Your task to perform on an android device: open app "Google Calendar" Image 0: 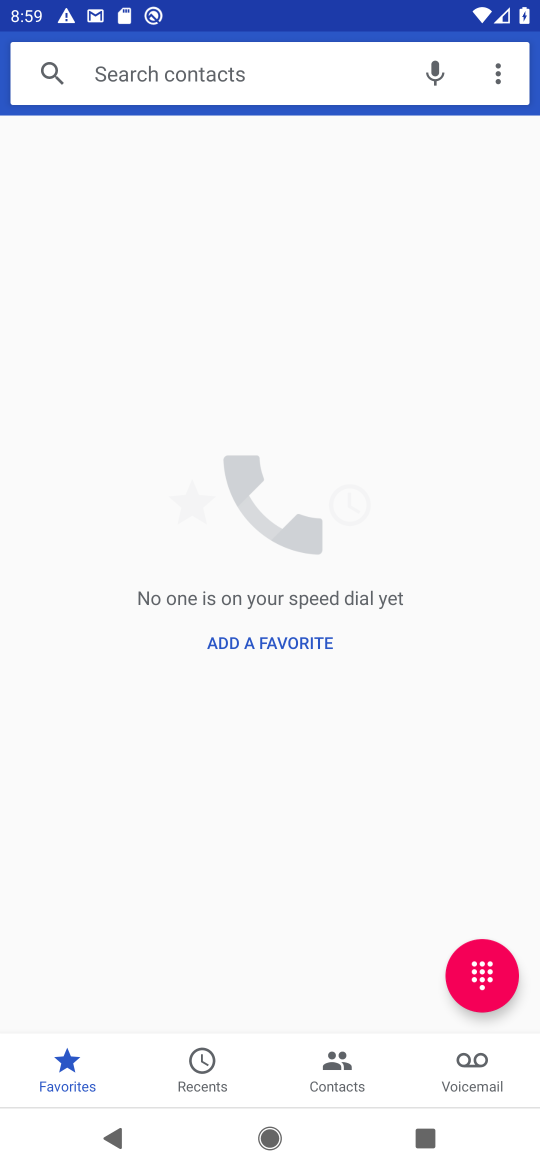
Step 0: press home button
Your task to perform on an android device: open app "Google Calendar" Image 1: 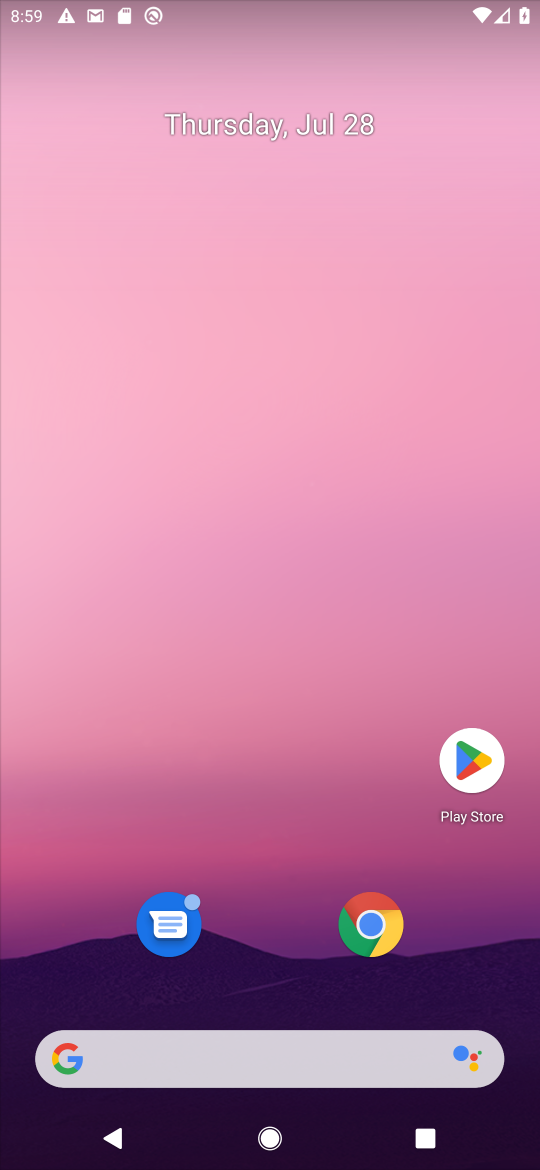
Step 1: drag from (266, 1055) to (405, 276)
Your task to perform on an android device: open app "Google Calendar" Image 2: 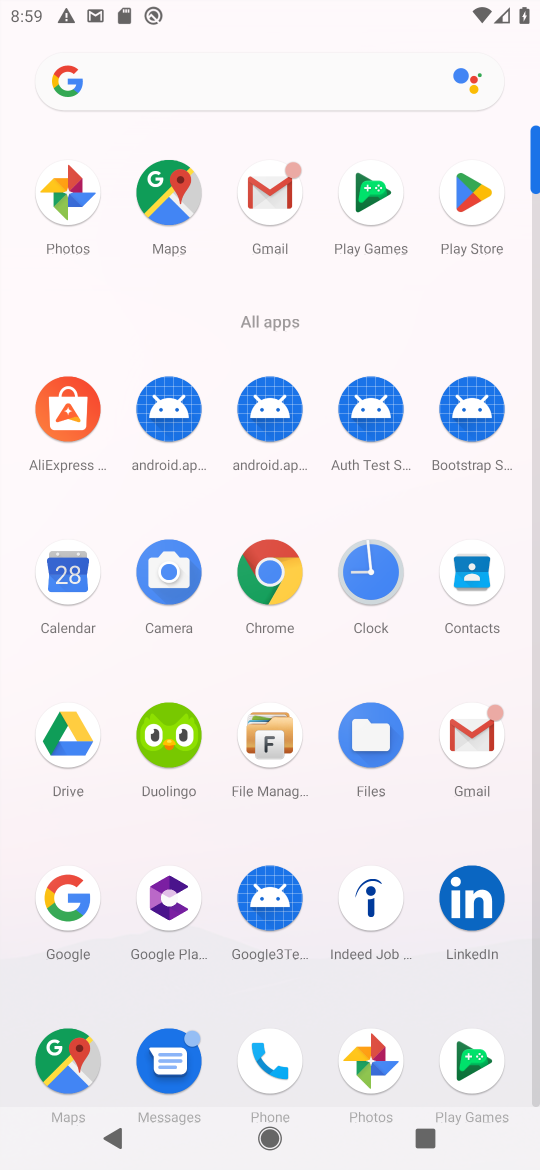
Step 2: click (73, 590)
Your task to perform on an android device: open app "Google Calendar" Image 3: 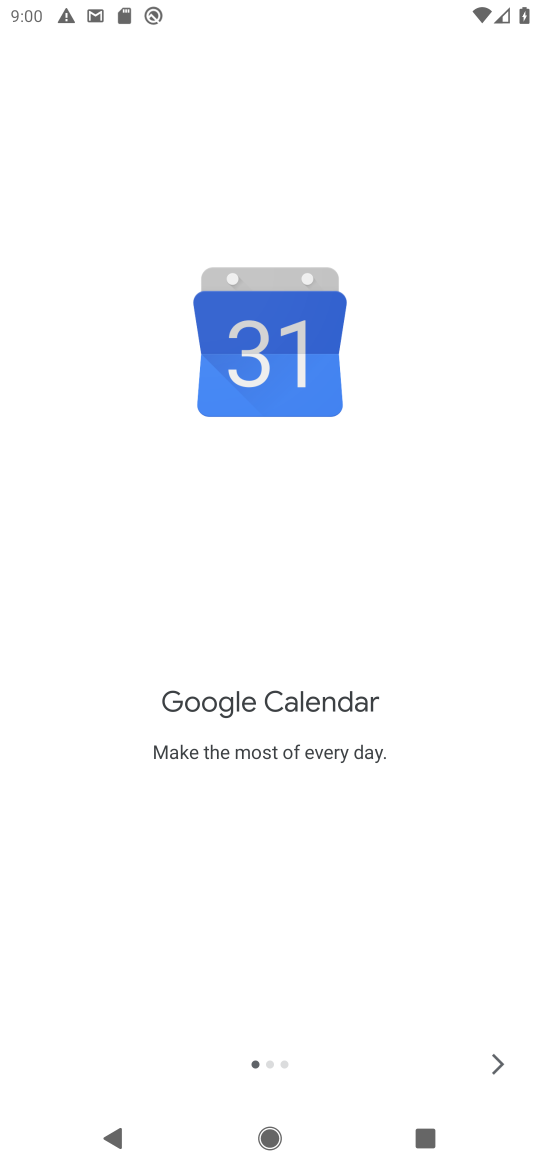
Step 3: click (498, 1072)
Your task to perform on an android device: open app "Google Calendar" Image 4: 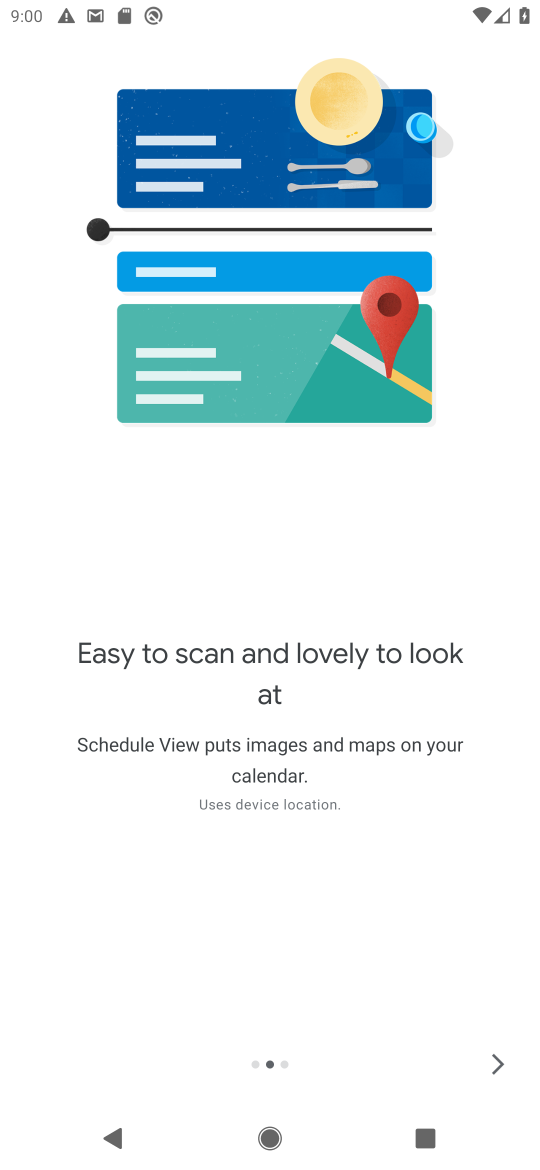
Step 4: click (498, 1071)
Your task to perform on an android device: open app "Google Calendar" Image 5: 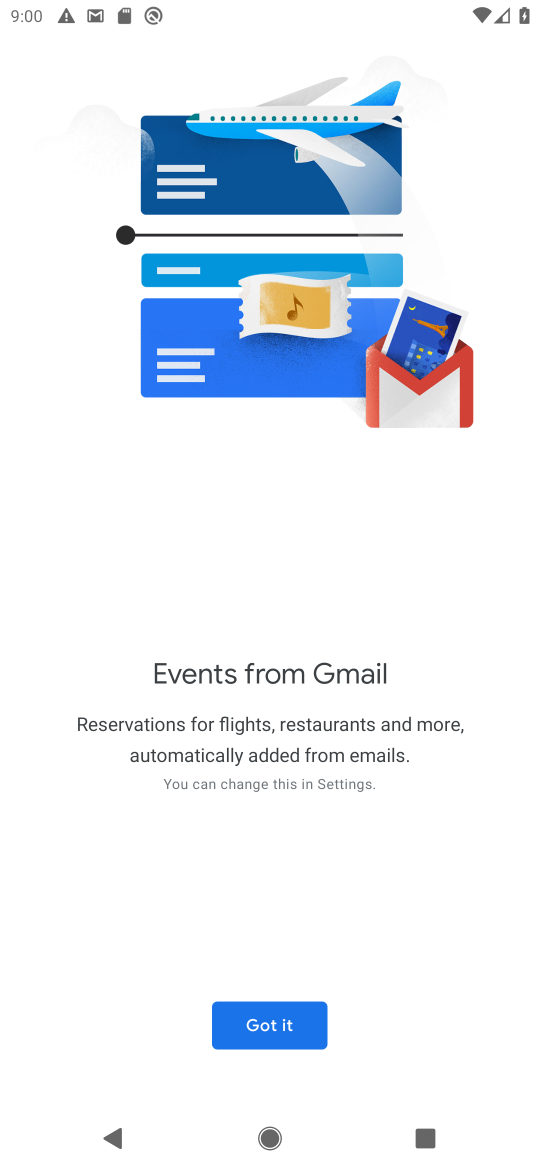
Step 5: click (285, 1030)
Your task to perform on an android device: open app "Google Calendar" Image 6: 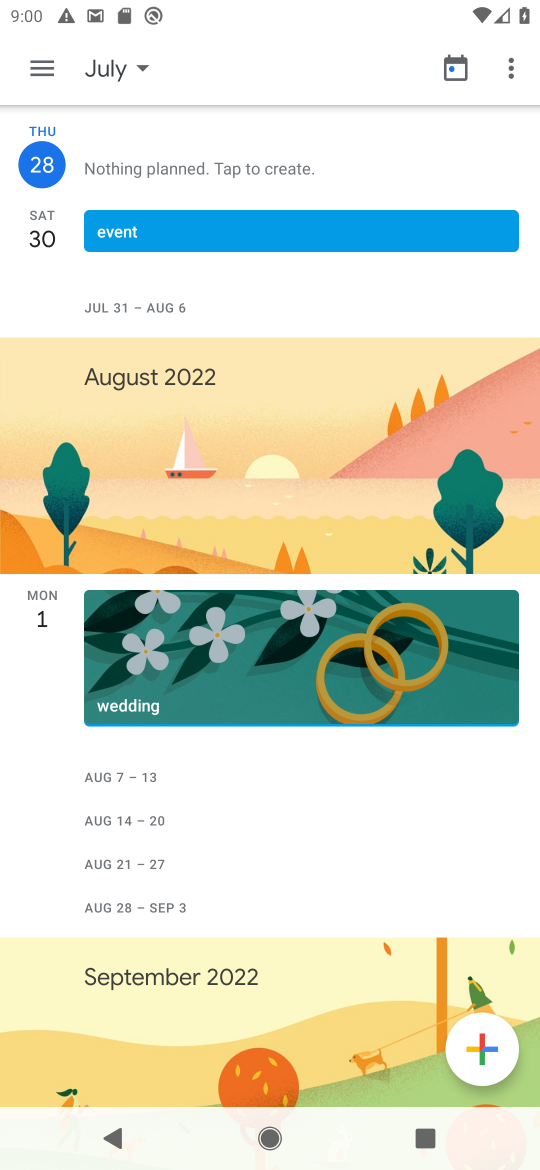
Step 6: task complete